Your task to perform on an android device: Go to Android settings Image 0: 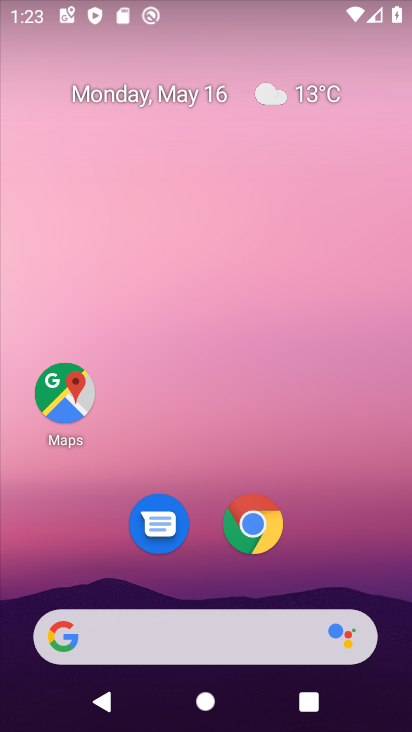
Step 0: drag from (333, 515) to (332, 62)
Your task to perform on an android device: Go to Android settings Image 1: 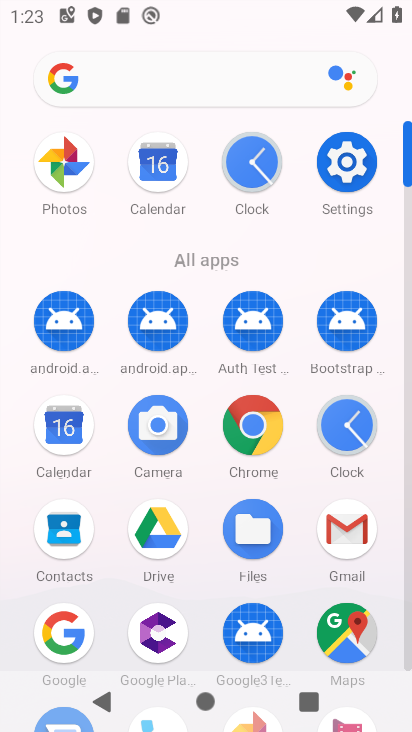
Step 1: click (345, 165)
Your task to perform on an android device: Go to Android settings Image 2: 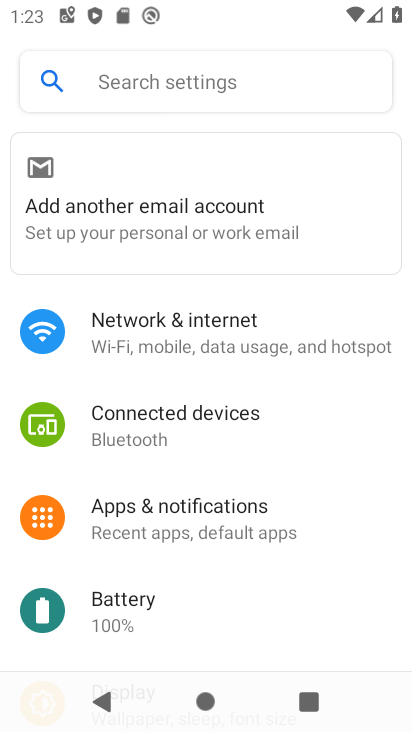
Step 2: drag from (225, 599) to (232, 130)
Your task to perform on an android device: Go to Android settings Image 3: 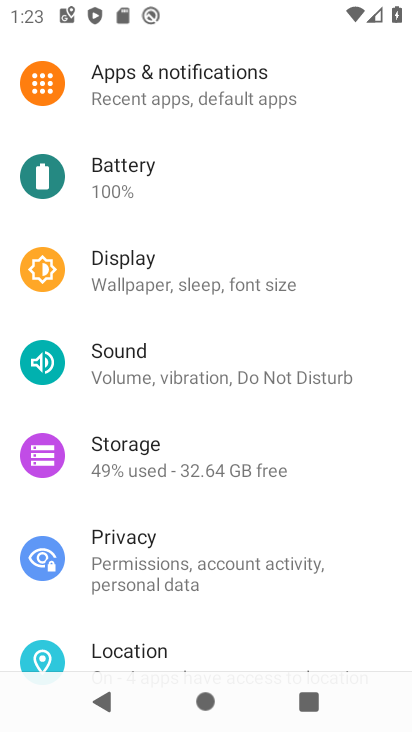
Step 3: drag from (236, 620) to (217, 99)
Your task to perform on an android device: Go to Android settings Image 4: 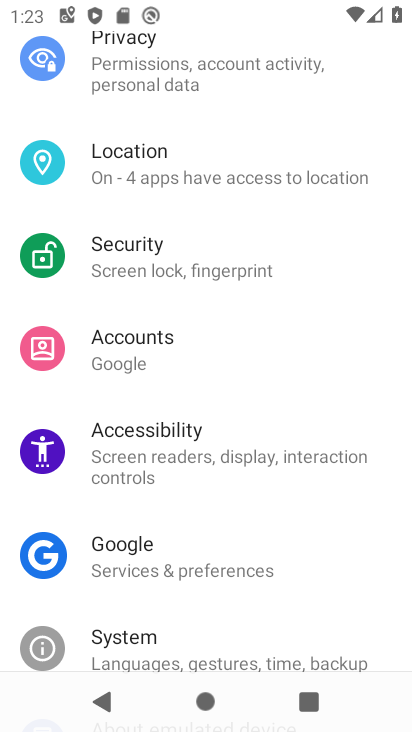
Step 4: drag from (259, 494) to (271, 269)
Your task to perform on an android device: Go to Android settings Image 5: 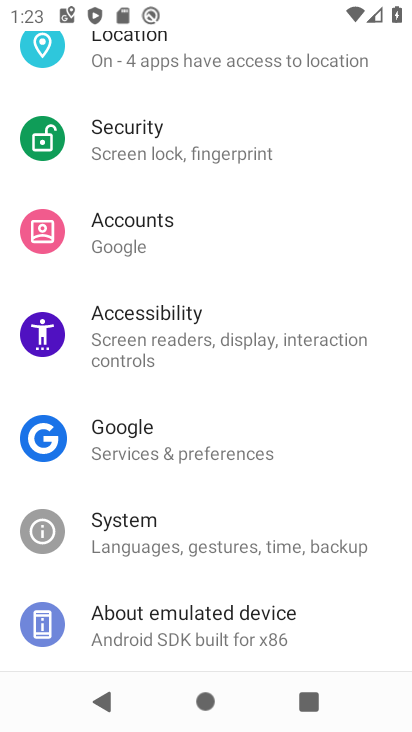
Step 5: click (232, 620)
Your task to perform on an android device: Go to Android settings Image 6: 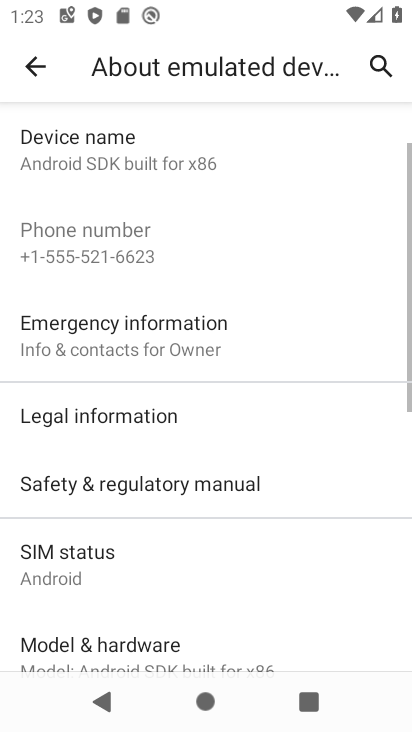
Step 6: task complete